Your task to perform on an android device: Do I have any events today? Image 0: 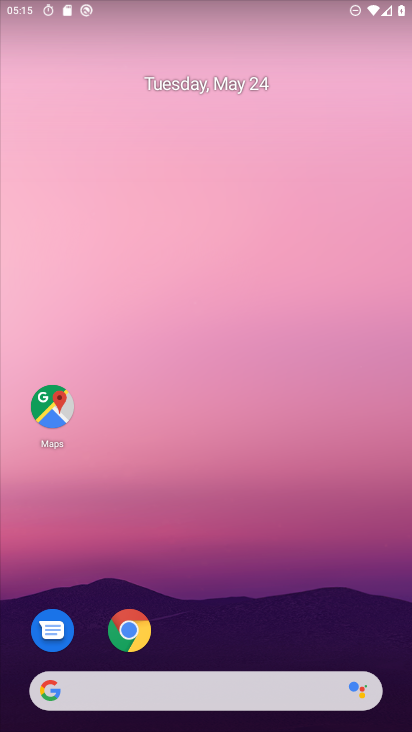
Step 0: click (210, 93)
Your task to perform on an android device: Do I have any events today? Image 1: 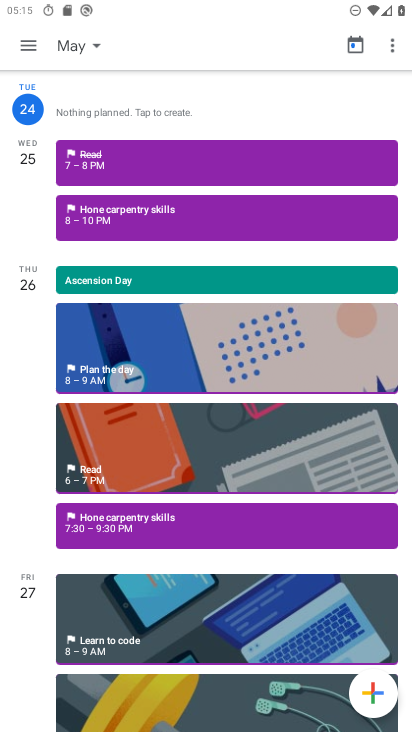
Step 1: click (83, 45)
Your task to perform on an android device: Do I have any events today? Image 2: 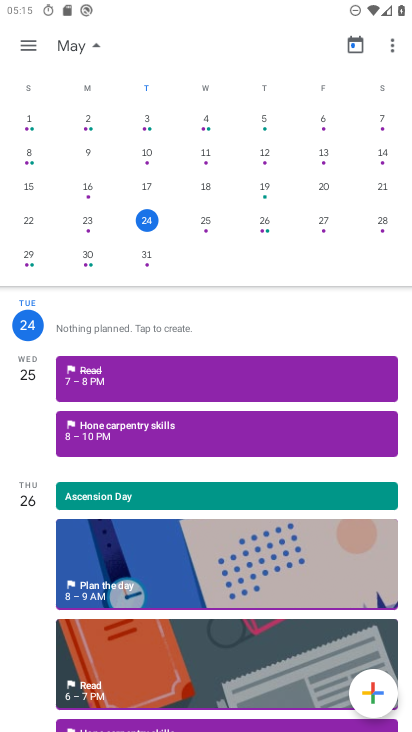
Step 2: task complete